Your task to perform on an android device: What's on my calendar today? Image 0: 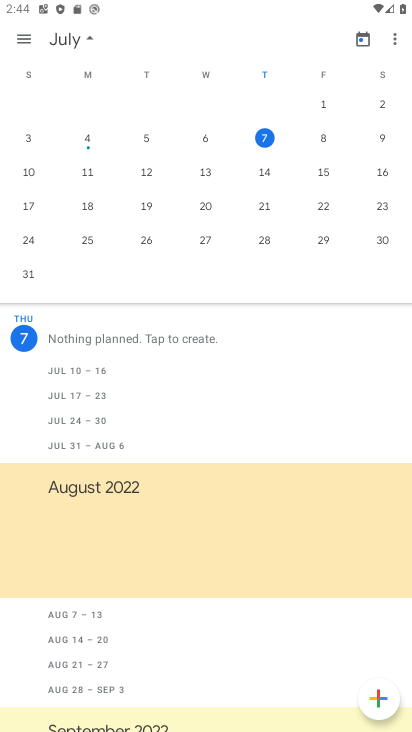
Step 0: press home button
Your task to perform on an android device: What's on my calendar today? Image 1: 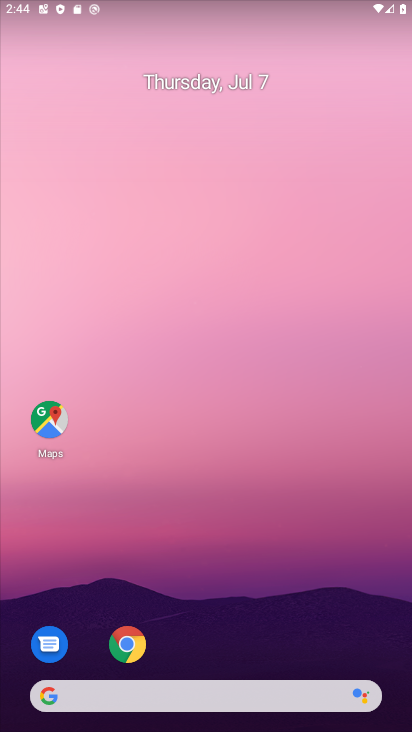
Step 1: drag from (266, 565) to (260, 59)
Your task to perform on an android device: What's on my calendar today? Image 2: 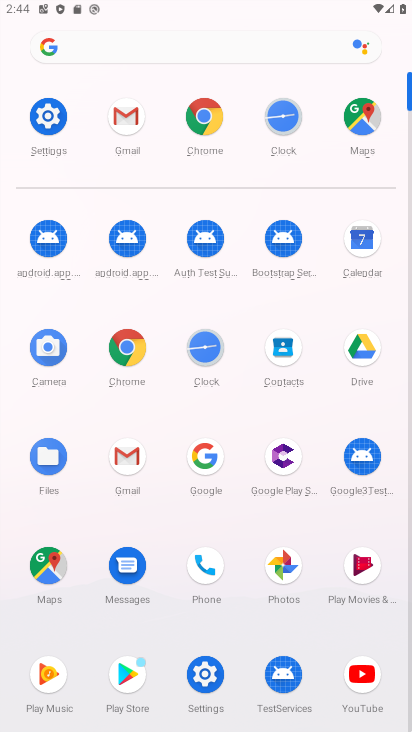
Step 2: click (353, 240)
Your task to perform on an android device: What's on my calendar today? Image 3: 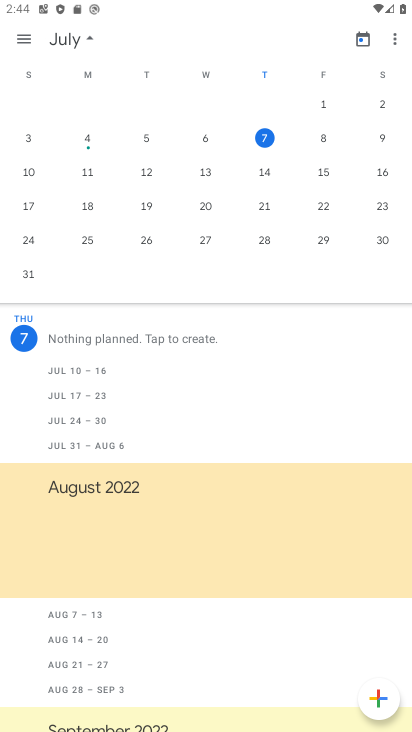
Step 3: click (269, 138)
Your task to perform on an android device: What's on my calendar today? Image 4: 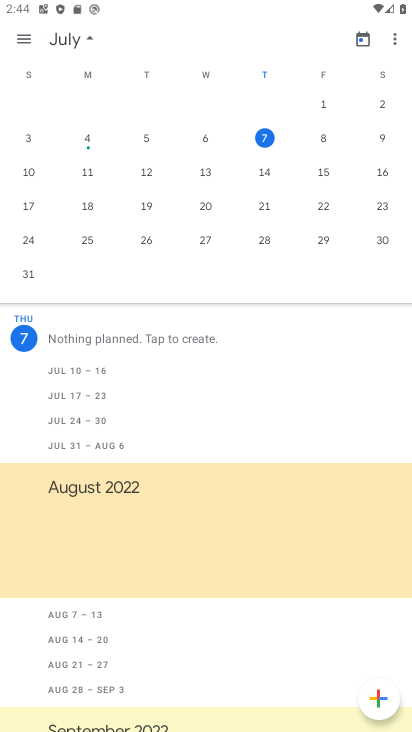
Step 4: task complete